Your task to perform on an android device: Go to Reddit.com Image 0: 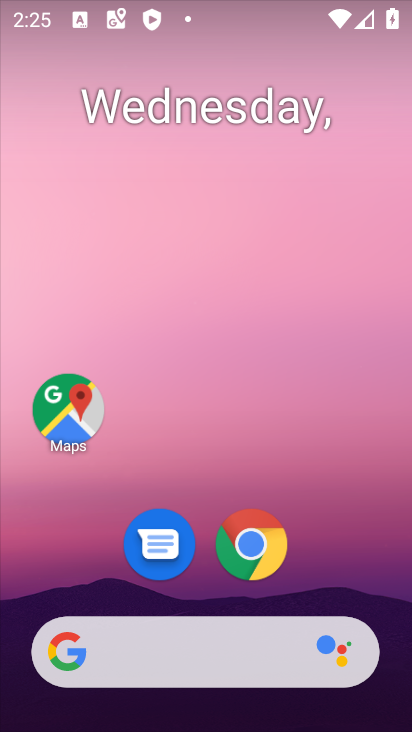
Step 0: click (249, 542)
Your task to perform on an android device: Go to Reddit.com Image 1: 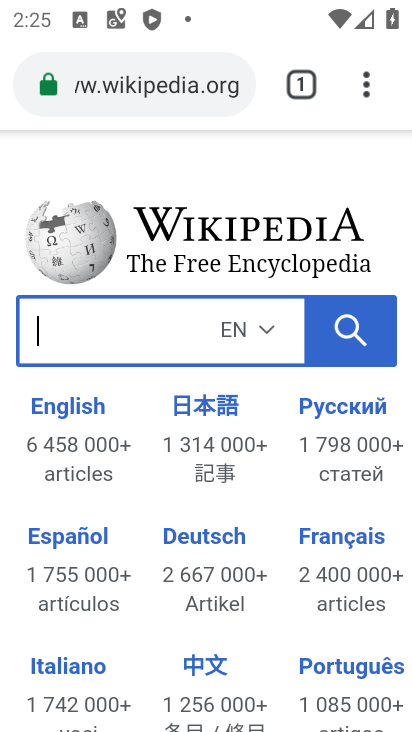
Step 1: click (122, 81)
Your task to perform on an android device: Go to Reddit.com Image 2: 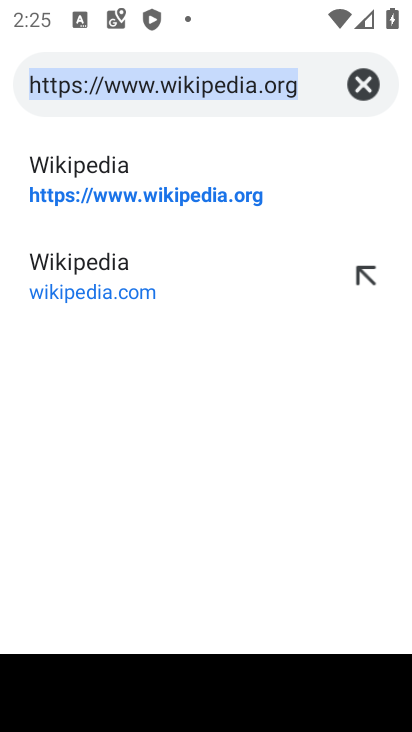
Step 2: click (369, 86)
Your task to perform on an android device: Go to Reddit.com Image 3: 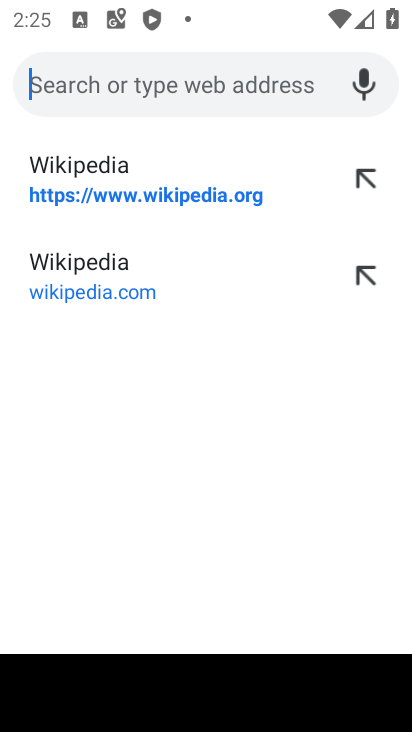
Step 3: type "reddit .com"
Your task to perform on an android device: Go to Reddit.com Image 4: 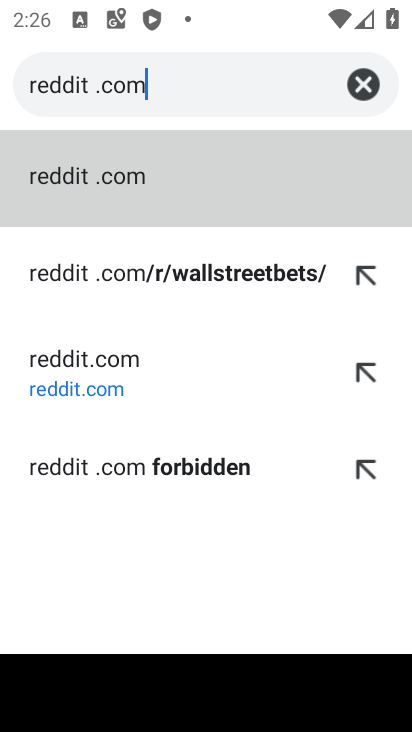
Step 4: click (48, 171)
Your task to perform on an android device: Go to Reddit.com Image 5: 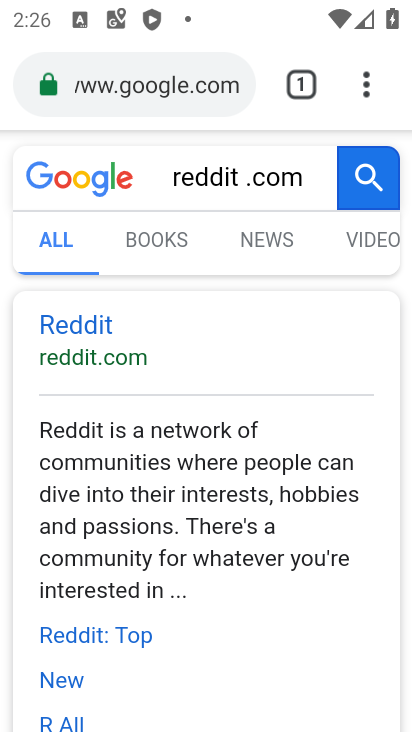
Step 5: click (91, 352)
Your task to perform on an android device: Go to Reddit.com Image 6: 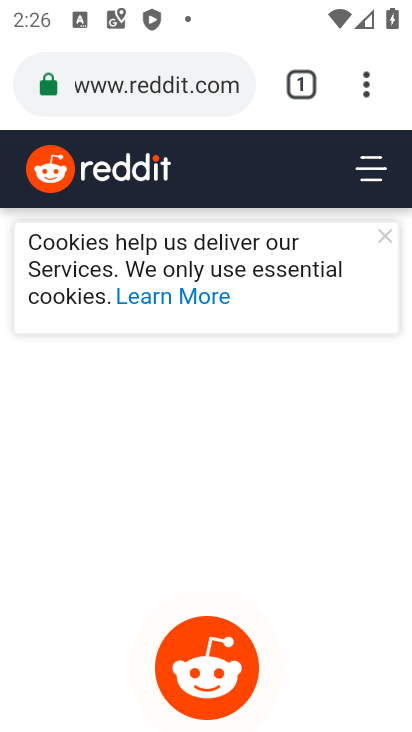
Step 6: task complete